Your task to perform on an android device: Search for "jbl flip 4" on ebay.com, select the first entry, add it to the cart, then select checkout. Image 0: 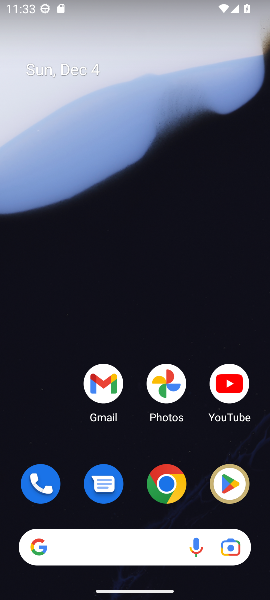
Step 0: click (162, 488)
Your task to perform on an android device: Search for "jbl flip 4" on ebay.com, select the first entry, add it to the cart, then select checkout. Image 1: 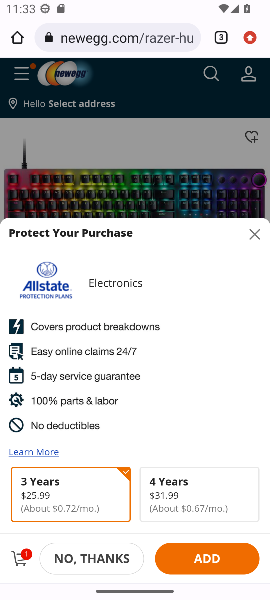
Step 1: click (128, 35)
Your task to perform on an android device: Search for "jbl flip 4" on ebay.com, select the first entry, add it to the cart, then select checkout. Image 2: 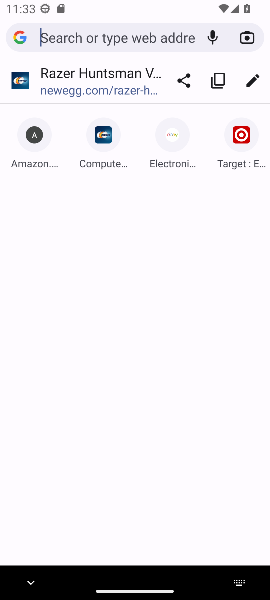
Step 2: type "ebay.com"
Your task to perform on an android device: Search for "jbl flip 4" on ebay.com, select the first entry, add it to the cart, then select checkout. Image 3: 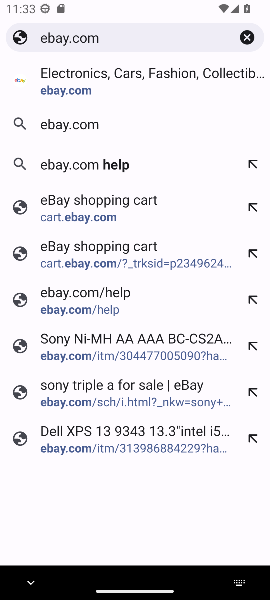
Step 3: click (53, 101)
Your task to perform on an android device: Search for "jbl flip 4" on ebay.com, select the first entry, add it to the cart, then select checkout. Image 4: 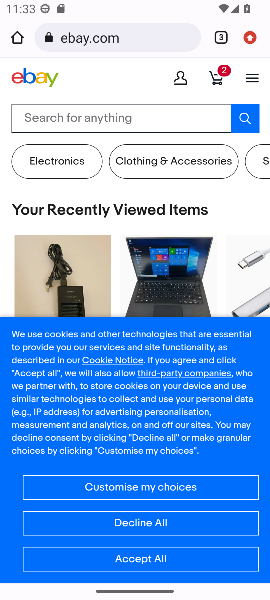
Step 4: click (130, 123)
Your task to perform on an android device: Search for "jbl flip 4" on ebay.com, select the first entry, add it to the cart, then select checkout. Image 5: 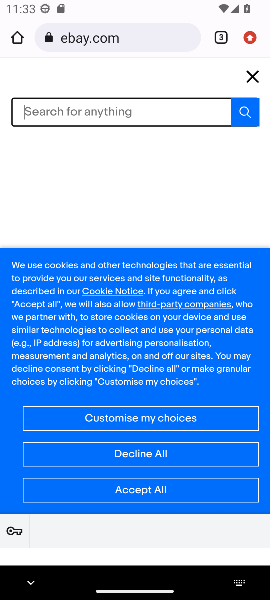
Step 5: type "jbl flip 4"
Your task to perform on an android device: Search for "jbl flip 4" on ebay.com, select the first entry, add it to the cart, then select checkout. Image 6: 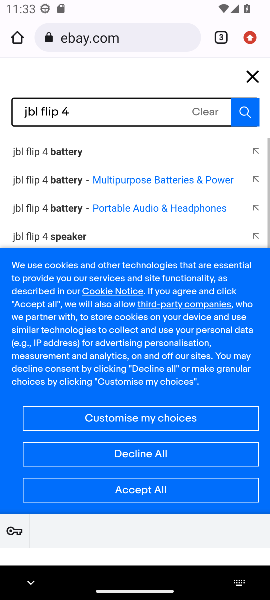
Step 6: click (244, 113)
Your task to perform on an android device: Search for "jbl flip 4" on ebay.com, select the first entry, add it to the cart, then select checkout. Image 7: 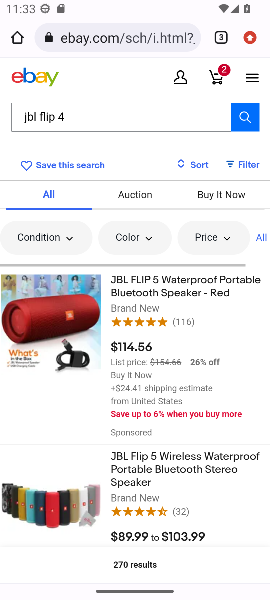
Step 7: task complete